Your task to perform on an android device: change alarm snooze length Image 0: 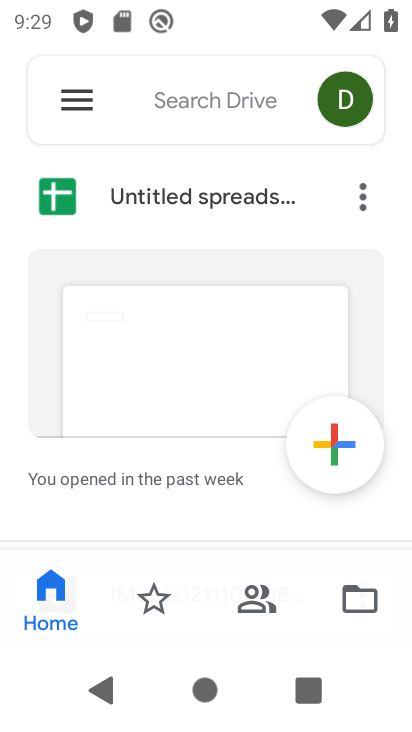
Step 0: press home button
Your task to perform on an android device: change alarm snooze length Image 1: 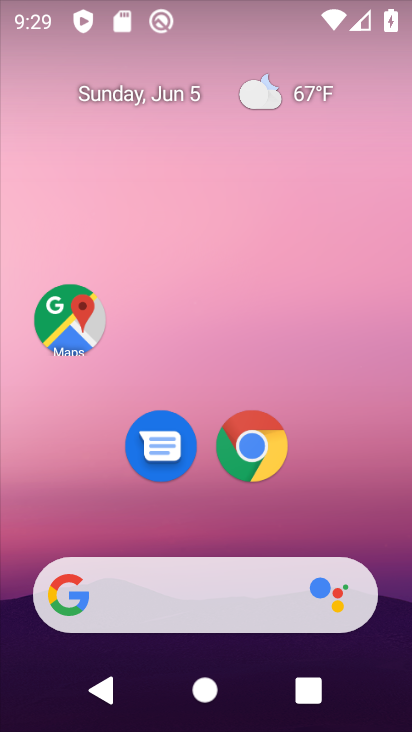
Step 1: drag from (192, 538) to (234, 193)
Your task to perform on an android device: change alarm snooze length Image 2: 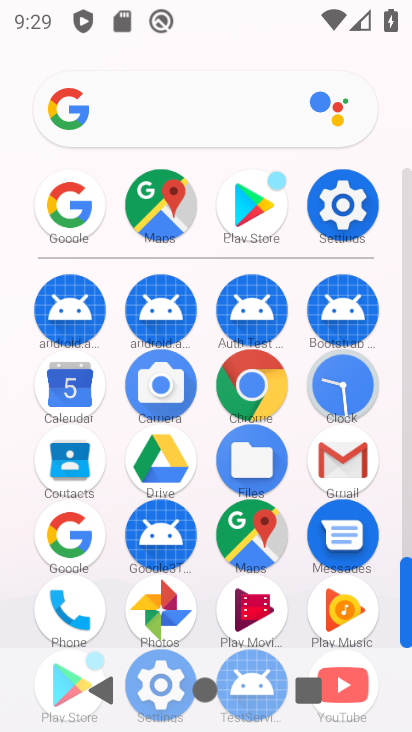
Step 2: click (323, 403)
Your task to perform on an android device: change alarm snooze length Image 3: 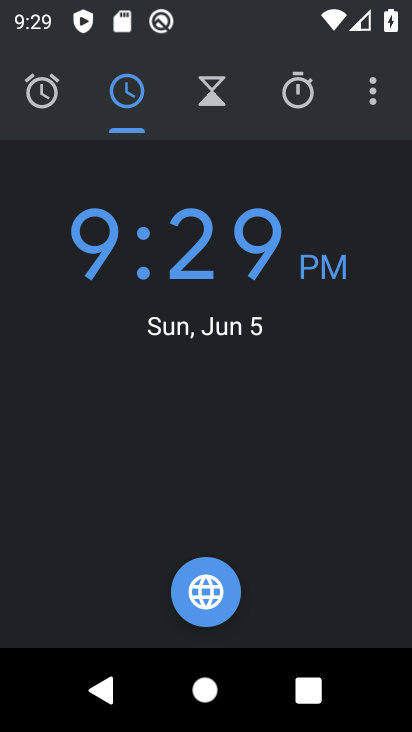
Step 3: click (374, 90)
Your task to perform on an android device: change alarm snooze length Image 4: 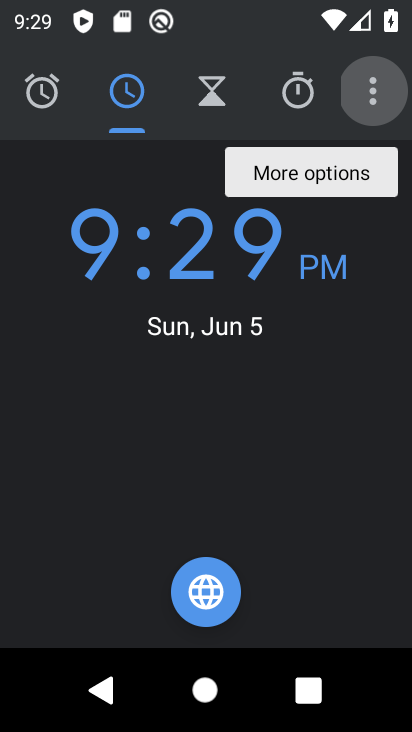
Step 4: click (374, 91)
Your task to perform on an android device: change alarm snooze length Image 5: 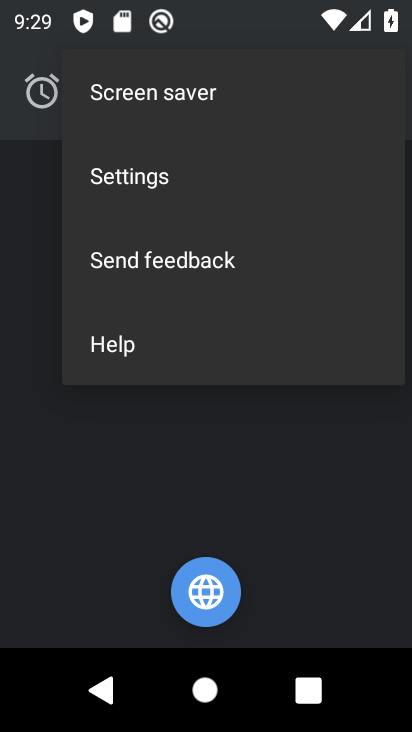
Step 5: click (118, 175)
Your task to perform on an android device: change alarm snooze length Image 6: 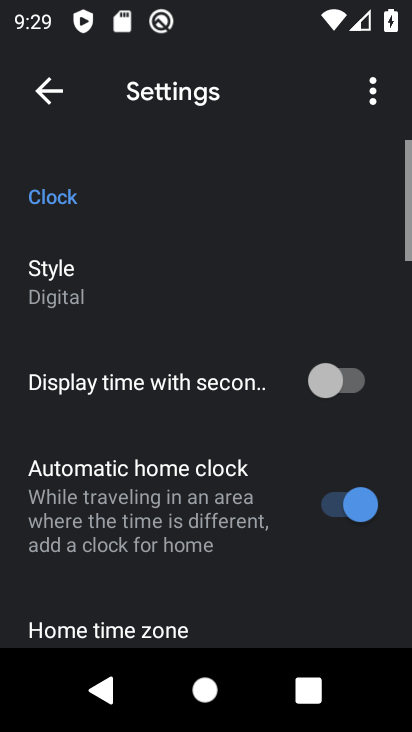
Step 6: drag from (164, 556) to (173, 185)
Your task to perform on an android device: change alarm snooze length Image 7: 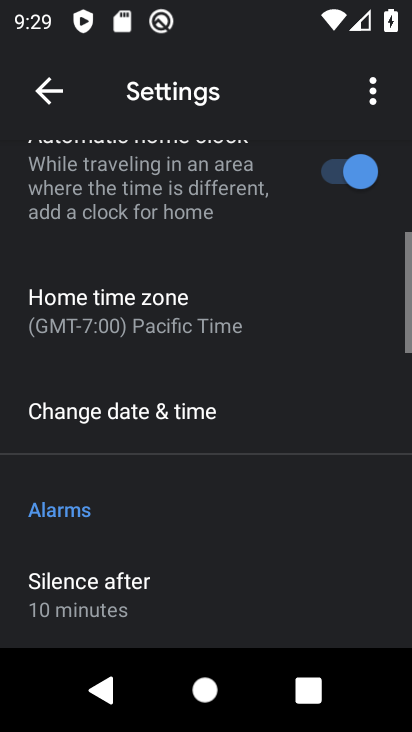
Step 7: drag from (156, 550) to (195, 295)
Your task to perform on an android device: change alarm snooze length Image 8: 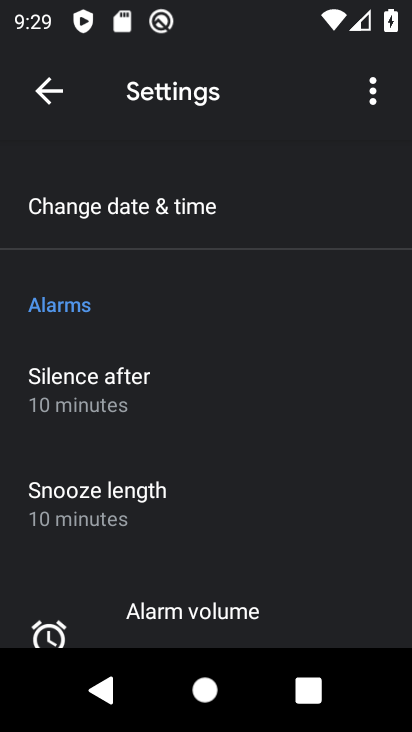
Step 8: click (181, 492)
Your task to perform on an android device: change alarm snooze length Image 9: 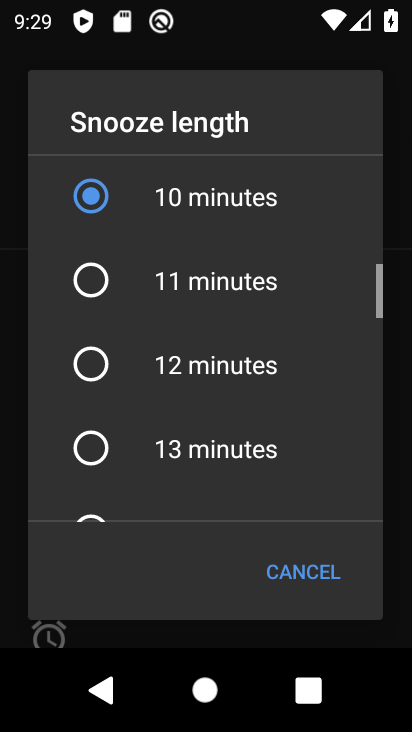
Step 9: drag from (181, 492) to (181, 250)
Your task to perform on an android device: change alarm snooze length Image 10: 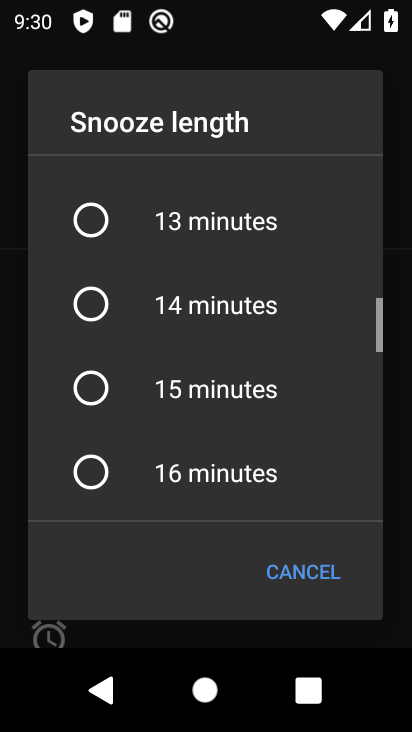
Step 10: click (183, 300)
Your task to perform on an android device: change alarm snooze length Image 11: 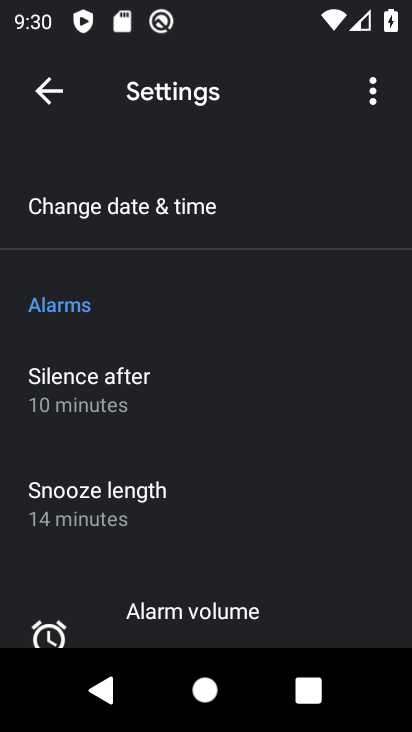
Step 11: click (95, 504)
Your task to perform on an android device: change alarm snooze length Image 12: 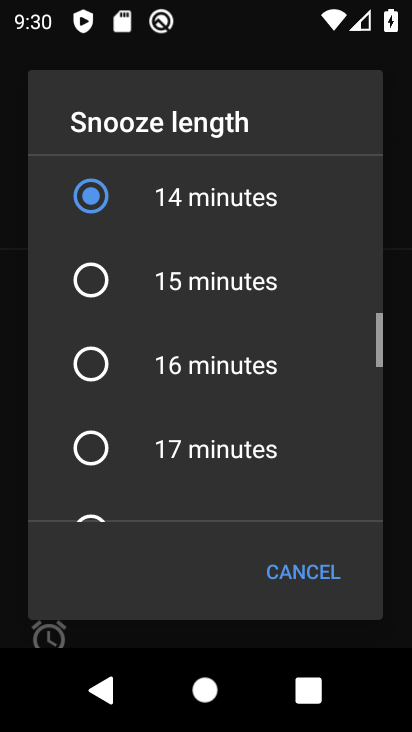
Step 12: click (203, 386)
Your task to perform on an android device: change alarm snooze length Image 13: 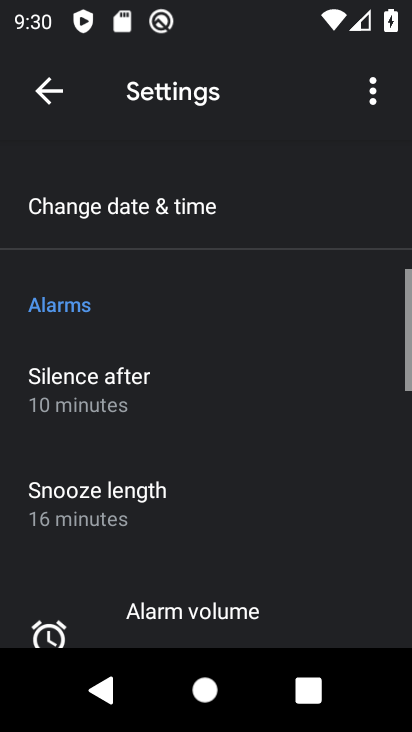
Step 13: task complete